Your task to perform on an android device: read, delete, or share a saved page in the chrome app Image 0: 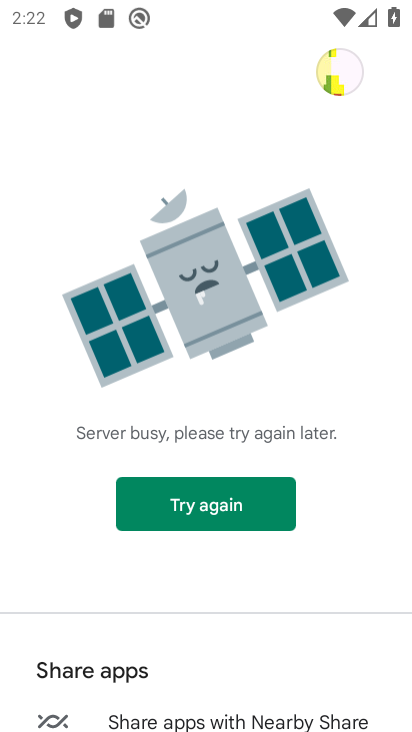
Step 0: press home button
Your task to perform on an android device: read, delete, or share a saved page in the chrome app Image 1: 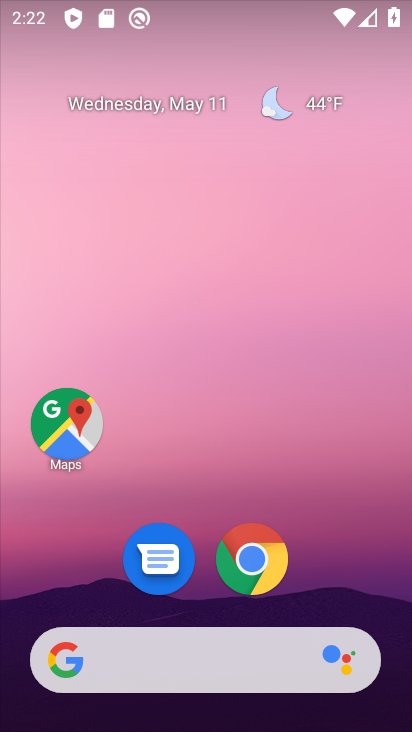
Step 1: click (264, 572)
Your task to perform on an android device: read, delete, or share a saved page in the chrome app Image 2: 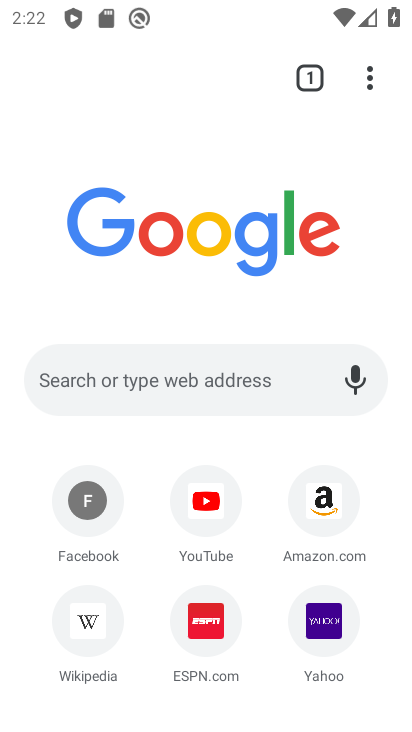
Step 2: click (369, 75)
Your task to perform on an android device: read, delete, or share a saved page in the chrome app Image 3: 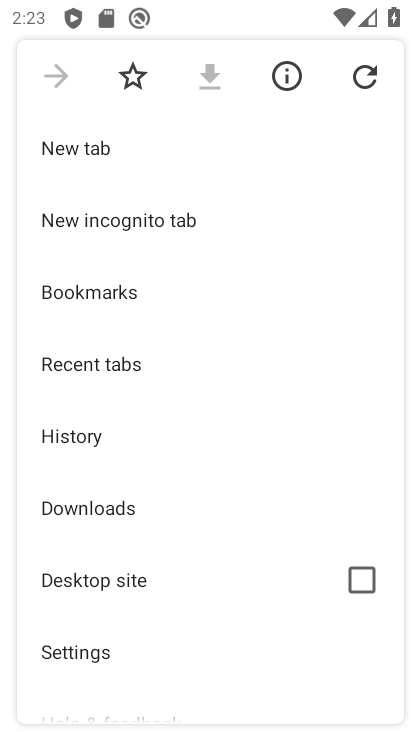
Step 3: click (117, 506)
Your task to perform on an android device: read, delete, or share a saved page in the chrome app Image 4: 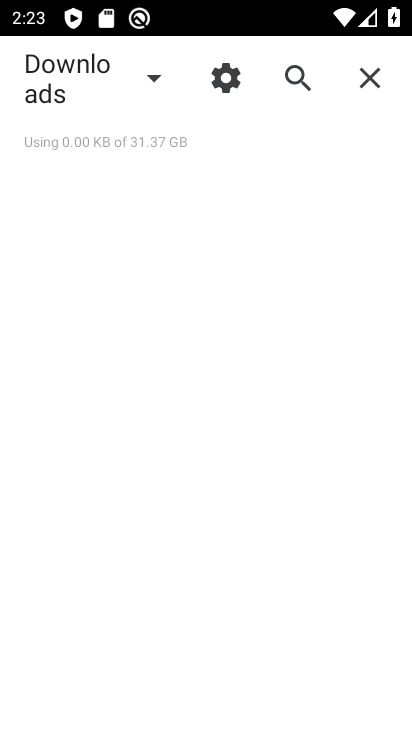
Step 4: click (141, 64)
Your task to perform on an android device: read, delete, or share a saved page in the chrome app Image 5: 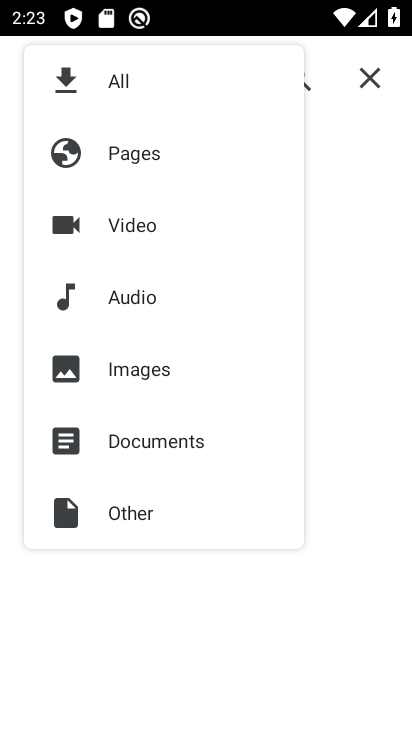
Step 5: click (150, 149)
Your task to perform on an android device: read, delete, or share a saved page in the chrome app Image 6: 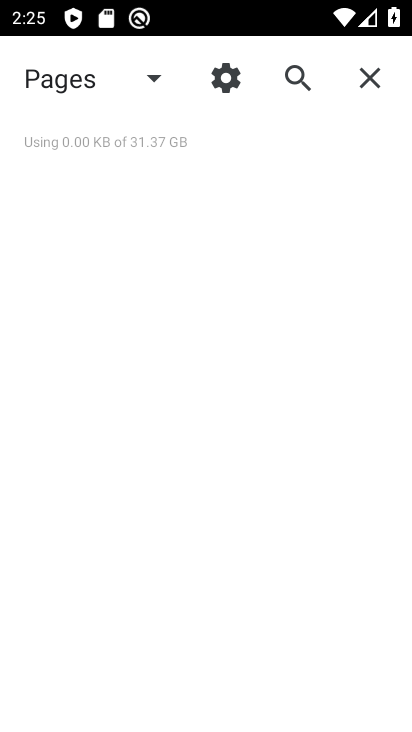
Step 6: task complete